Your task to perform on an android device: turn on data saver in the chrome app Image 0: 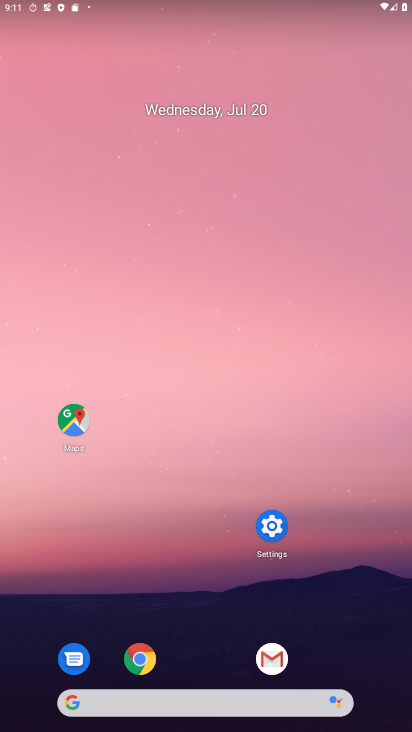
Step 0: click (150, 650)
Your task to perform on an android device: turn on data saver in the chrome app Image 1: 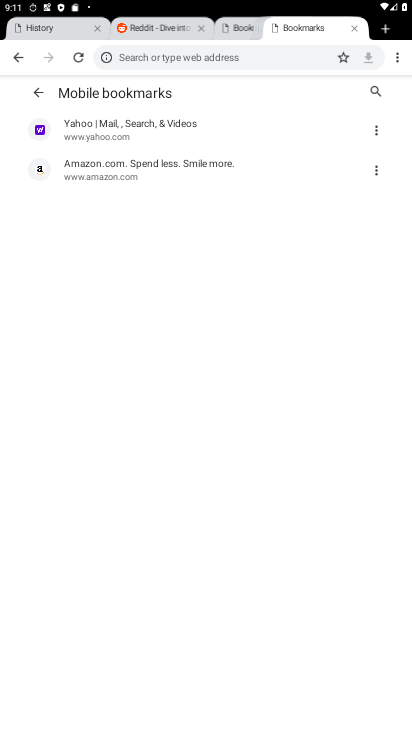
Step 1: click (392, 65)
Your task to perform on an android device: turn on data saver in the chrome app Image 2: 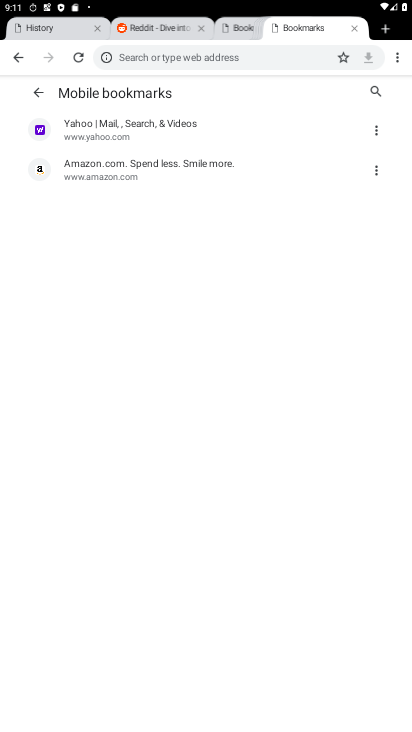
Step 2: click (400, 61)
Your task to perform on an android device: turn on data saver in the chrome app Image 3: 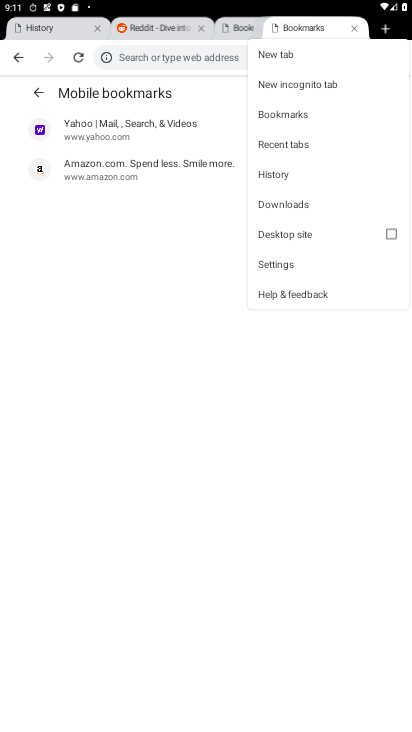
Step 3: click (291, 259)
Your task to perform on an android device: turn on data saver in the chrome app Image 4: 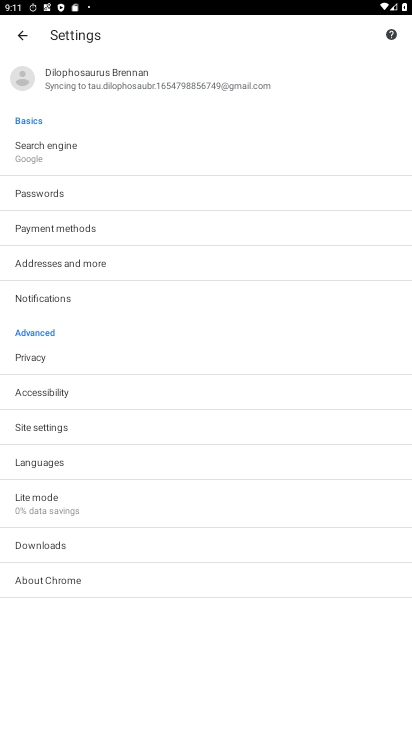
Step 4: click (92, 502)
Your task to perform on an android device: turn on data saver in the chrome app Image 5: 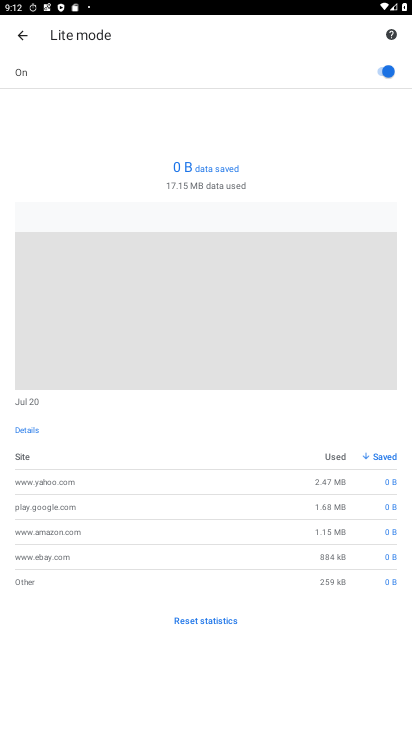
Step 5: task complete